Your task to perform on an android device: change the clock display to digital Image 0: 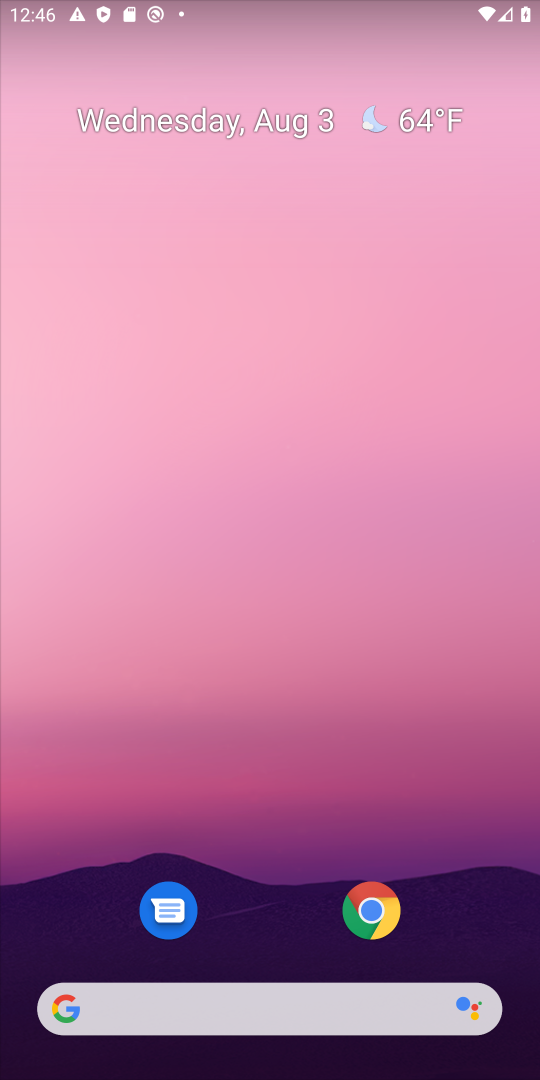
Step 0: drag from (285, 807) to (356, 143)
Your task to perform on an android device: change the clock display to digital Image 1: 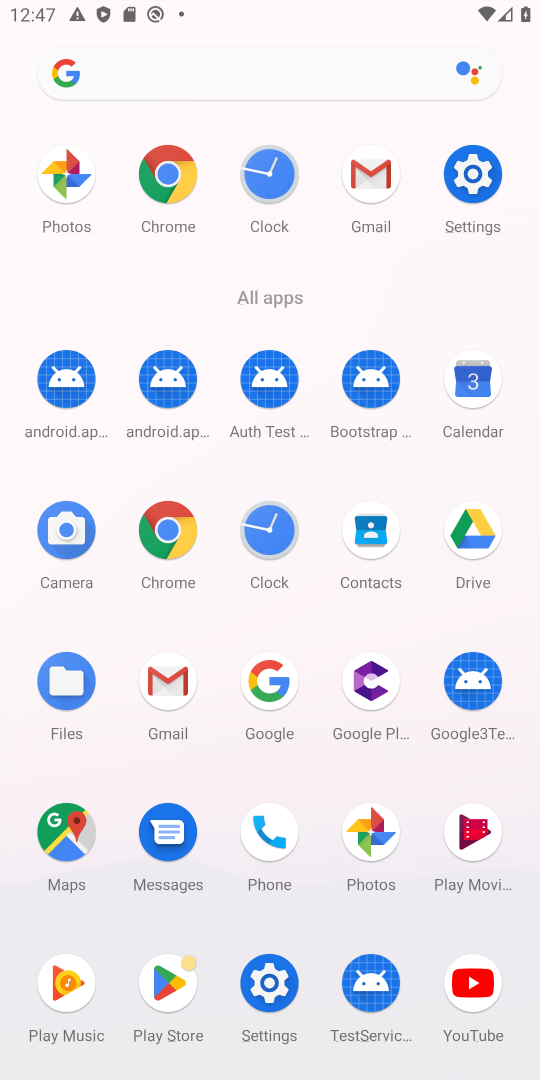
Step 1: click (272, 531)
Your task to perform on an android device: change the clock display to digital Image 2: 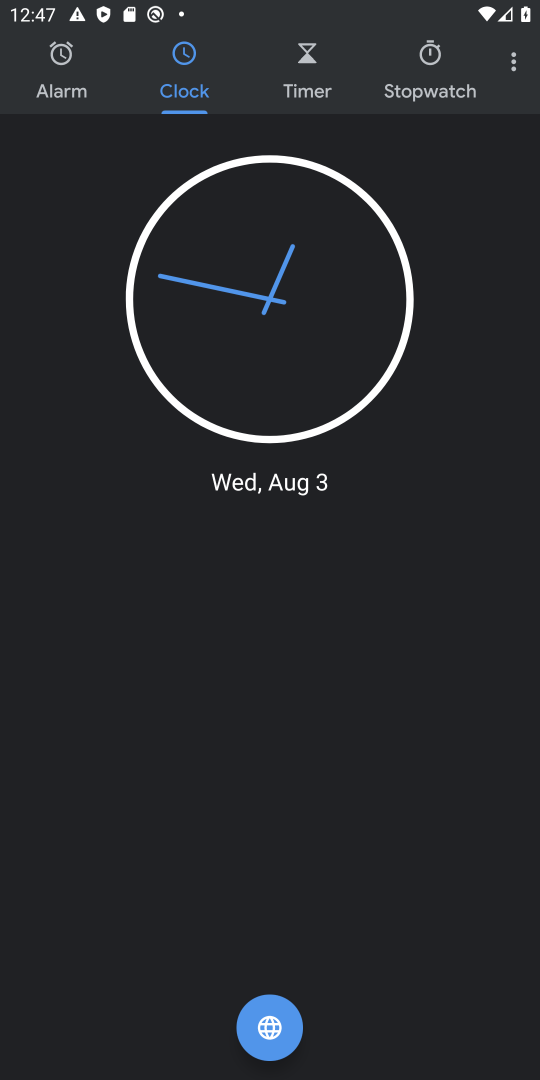
Step 2: click (511, 63)
Your task to perform on an android device: change the clock display to digital Image 3: 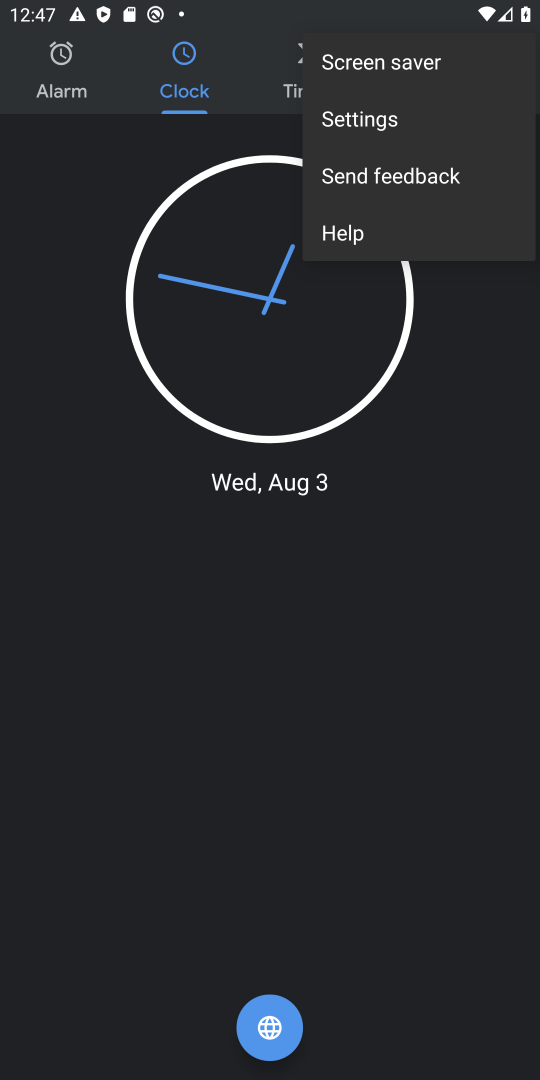
Step 3: click (387, 123)
Your task to perform on an android device: change the clock display to digital Image 4: 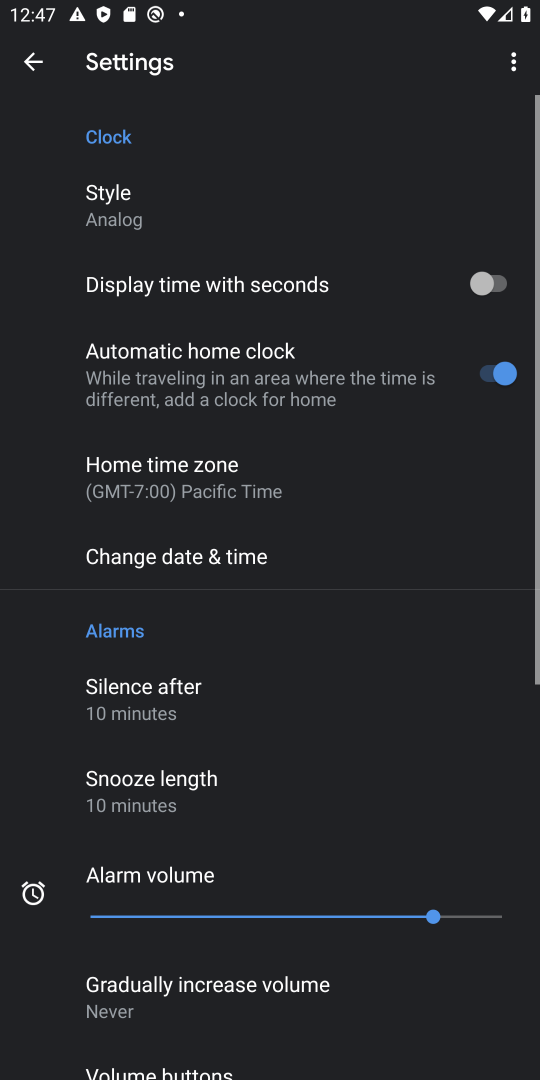
Step 4: click (155, 216)
Your task to perform on an android device: change the clock display to digital Image 5: 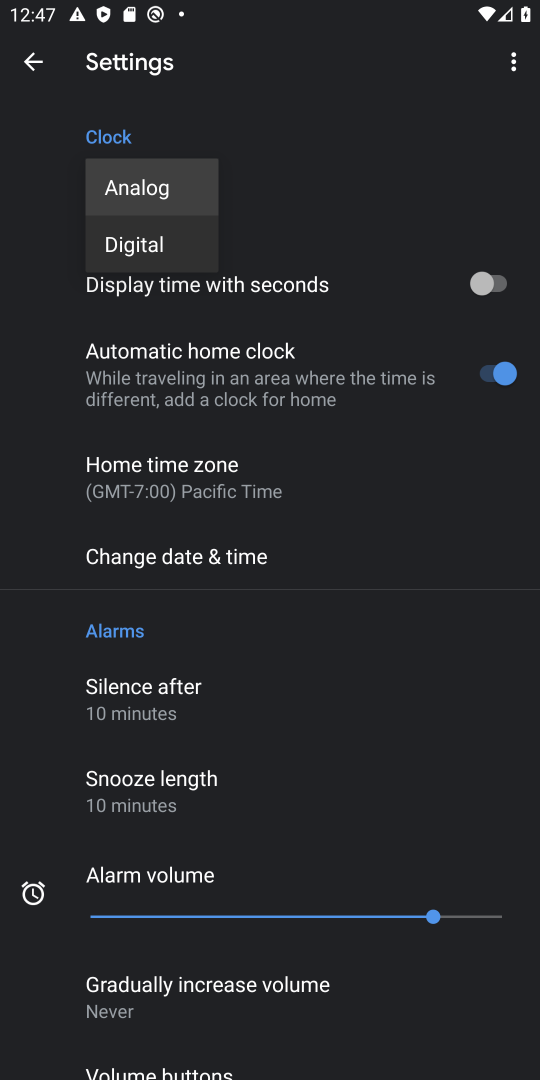
Step 5: click (149, 238)
Your task to perform on an android device: change the clock display to digital Image 6: 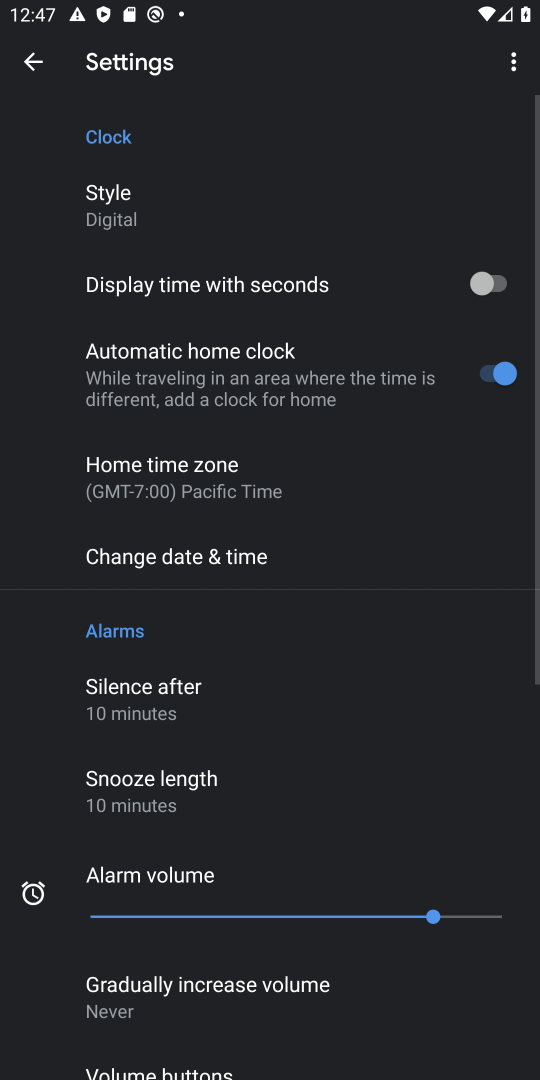
Step 6: task complete